Your task to perform on an android device: Open settings on Google Maps Image 0: 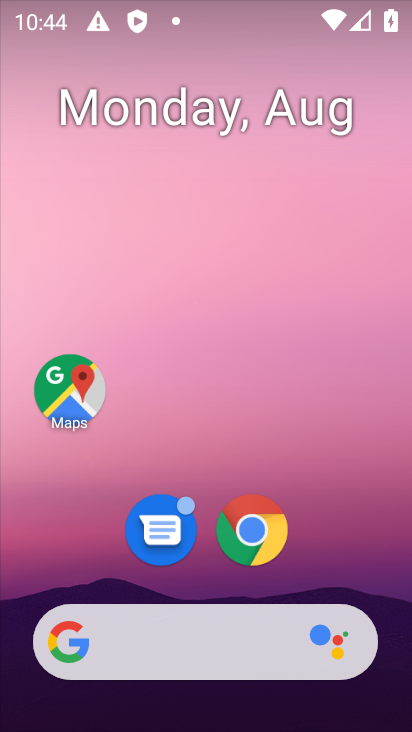
Step 0: drag from (252, 674) to (244, 203)
Your task to perform on an android device: Open settings on Google Maps Image 1: 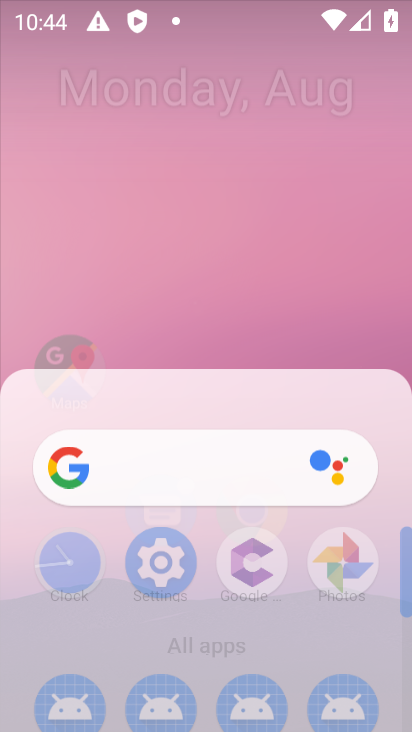
Step 1: click (309, 368)
Your task to perform on an android device: Open settings on Google Maps Image 2: 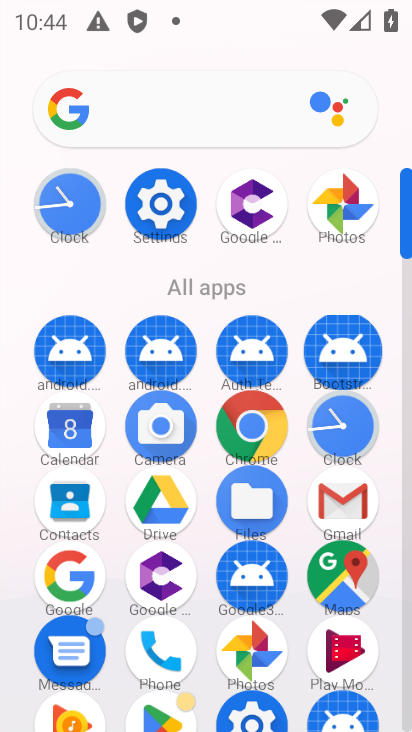
Step 2: drag from (306, 435) to (271, 220)
Your task to perform on an android device: Open settings on Google Maps Image 3: 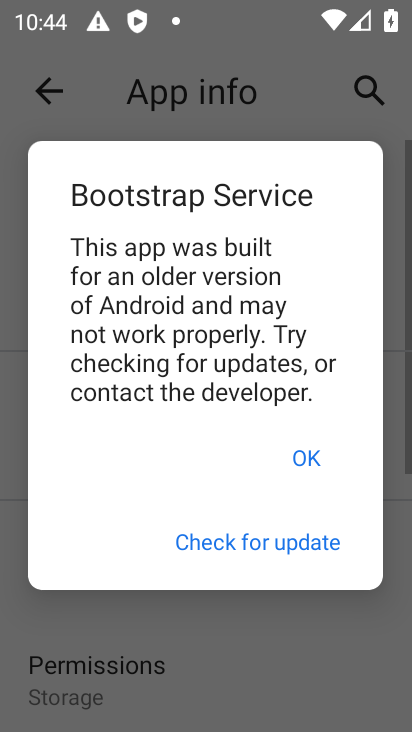
Step 3: click (309, 446)
Your task to perform on an android device: Open settings on Google Maps Image 4: 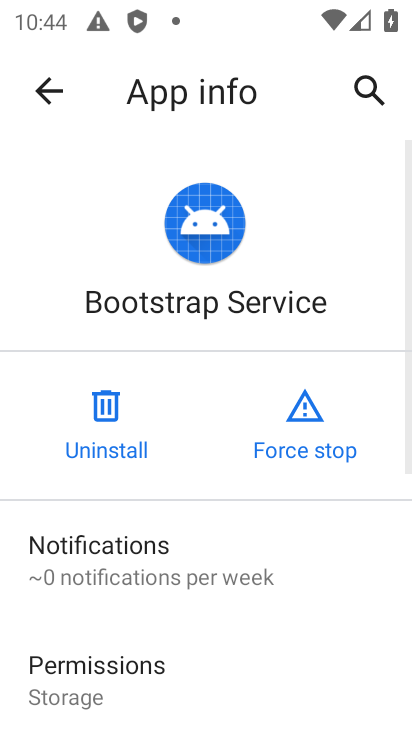
Step 4: click (41, 93)
Your task to perform on an android device: Open settings on Google Maps Image 5: 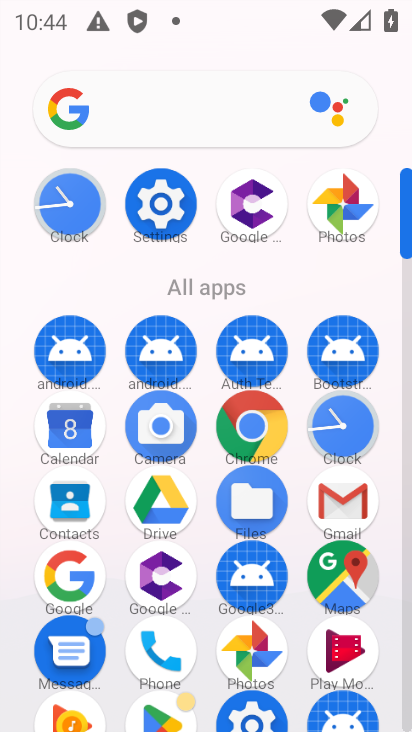
Step 5: click (340, 590)
Your task to perform on an android device: Open settings on Google Maps Image 6: 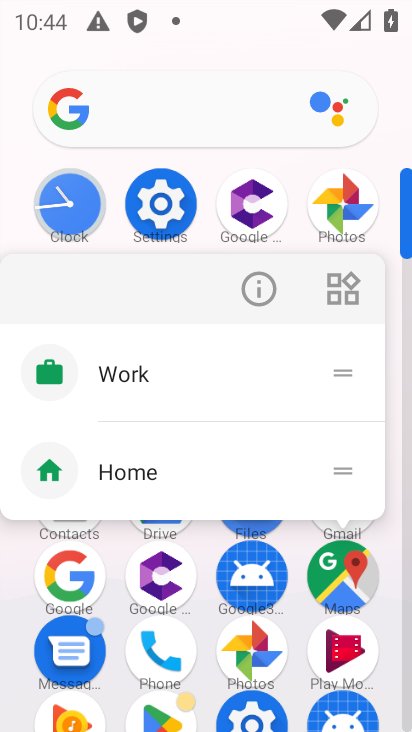
Step 6: click (341, 572)
Your task to perform on an android device: Open settings on Google Maps Image 7: 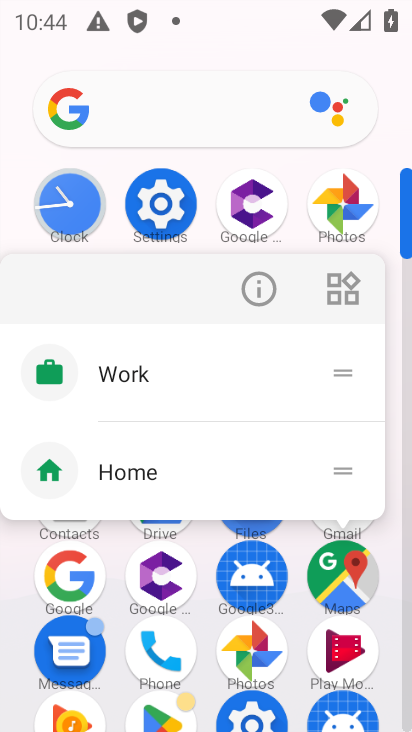
Step 7: click (341, 572)
Your task to perform on an android device: Open settings on Google Maps Image 8: 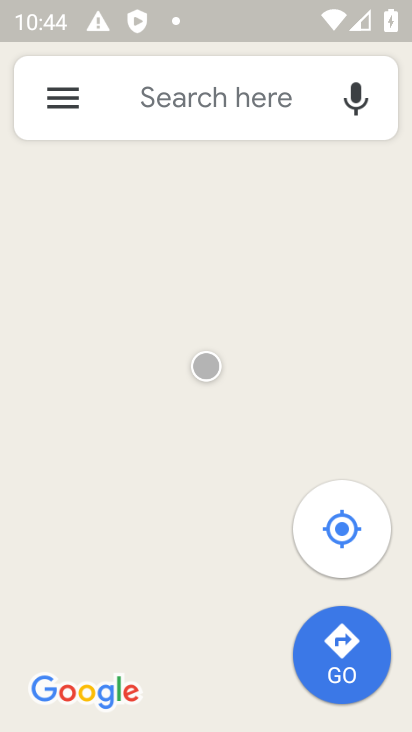
Step 8: click (62, 106)
Your task to perform on an android device: Open settings on Google Maps Image 9: 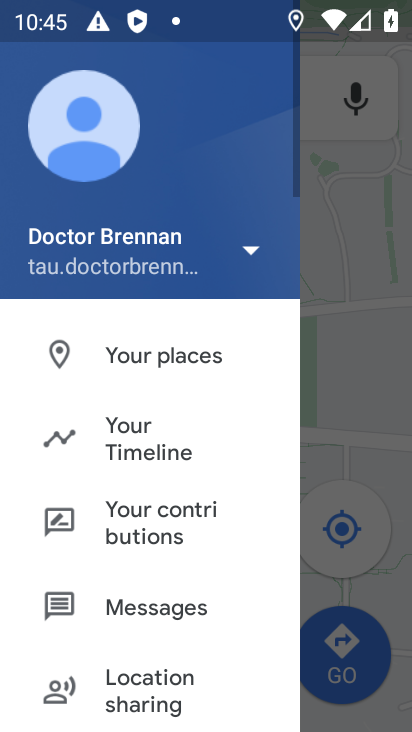
Step 9: drag from (166, 651) to (145, 269)
Your task to perform on an android device: Open settings on Google Maps Image 10: 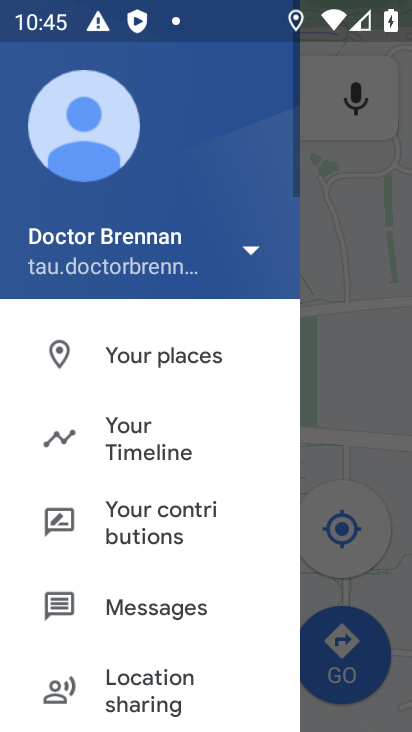
Step 10: drag from (181, 563) to (185, 300)
Your task to perform on an android device: Open settings on Google Maps Image 11: 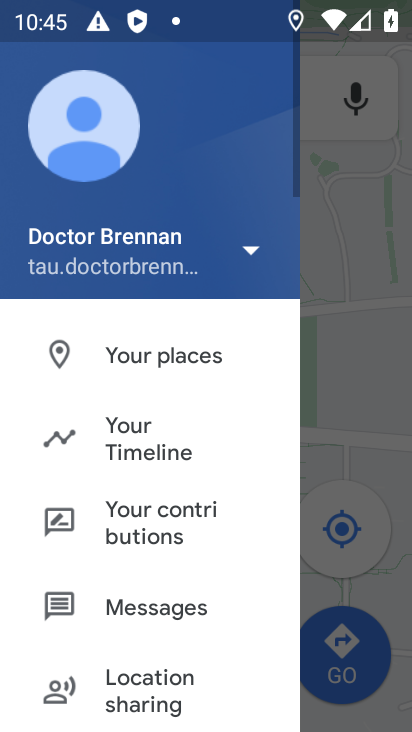
Step 11: drag from (190, 486) to (178, 177)
Your task to perform on an android device: Open settings on Google Maps Image 12: 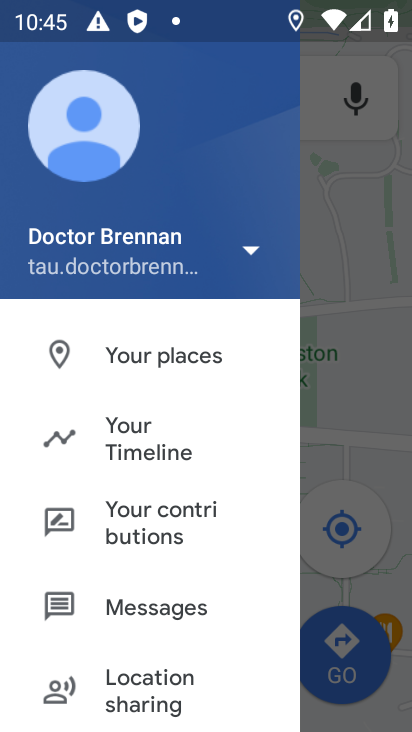
Step 12: click (170, 142)
Your task to perform on an android device: Open settings on Google Maps Image 13: 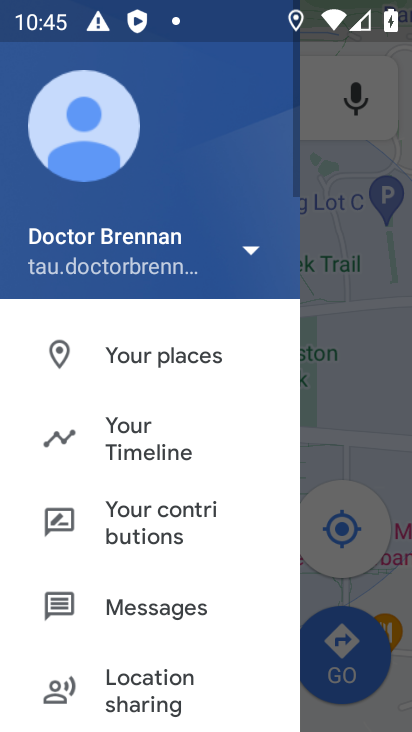
Step 13: drag from (155, 442) to (149, 193)
Your task to perform on an android device: Open settings on Google Maps Image 14: 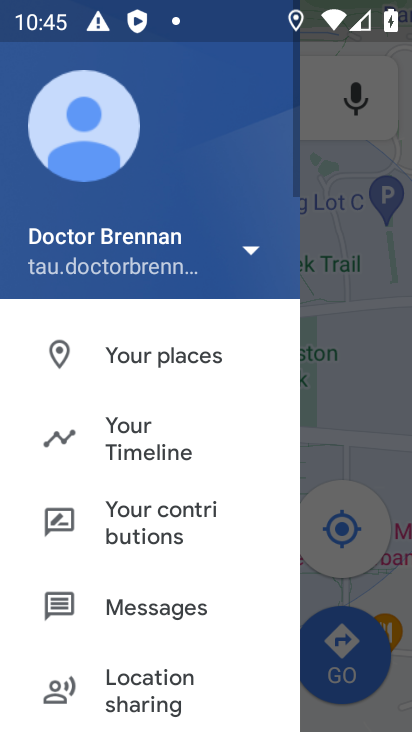
Step 14: drag from (172, 539) to (201, 206)
Your task to perform on an android device: Open settings on Google Maps Image 15: 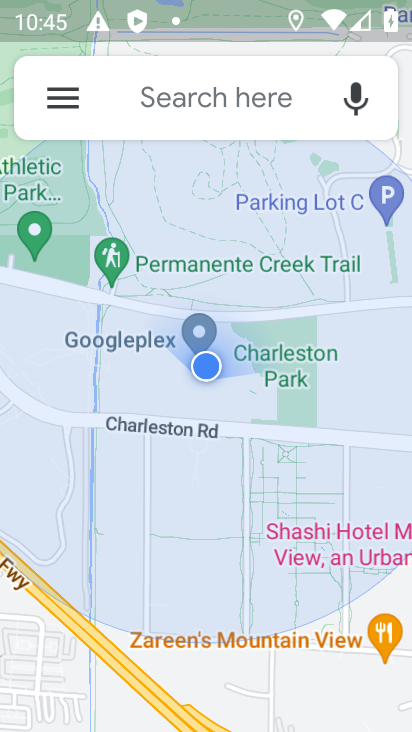
Step 15: drag from (196, 539) to (196, 269)
Your task to perform on an android device: Open settings on Google Maps Image 16: 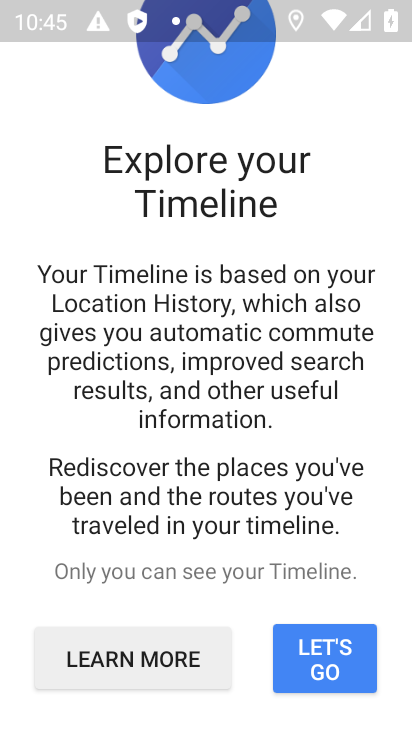
Step 16: click (139, 658)
Your task to perform on an android device: Open settings on Google Maps Image 17: 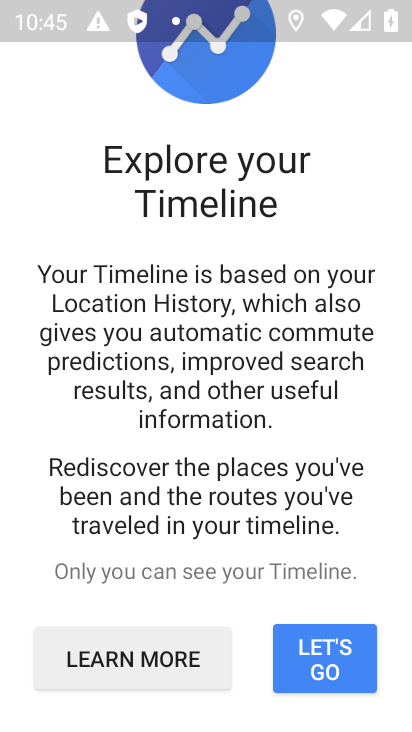
Step 17: task complete